Your task to perform on an android device: See recent photos Image 0: 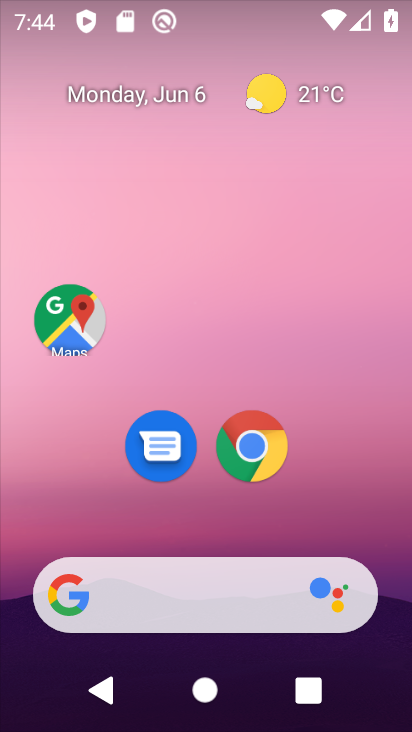
Step 0: drag from (278, 528) to (288, 12)
Your task to perform on an android device: See recent photos Image 1: 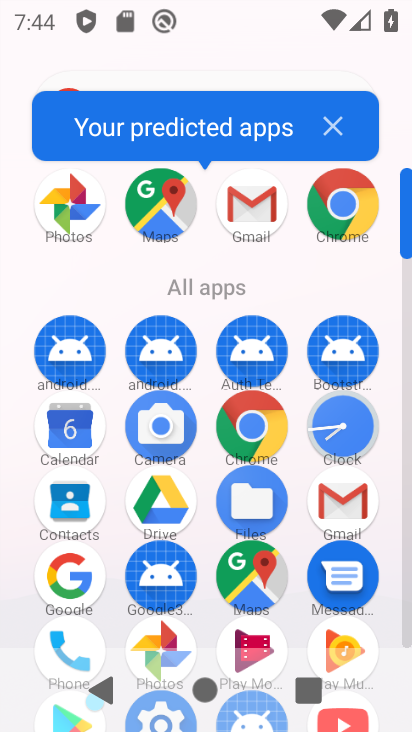
Step 1: click (168, 631)
Your task to perform on an android device: See recent photos Image 2: 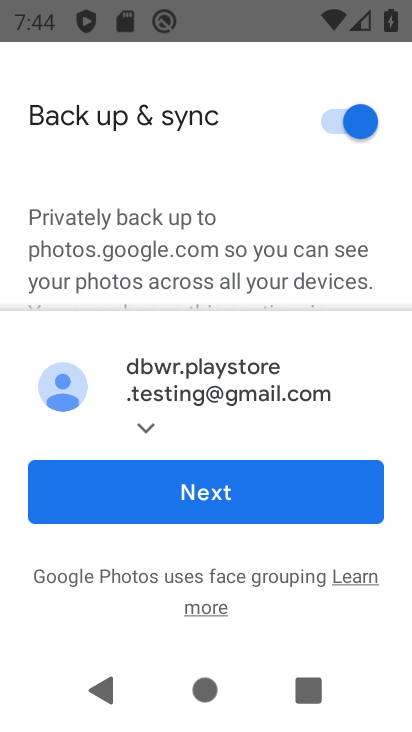
Step 2: click (172, 506)
Your task to perform on an android device: See recent photos Image 3: 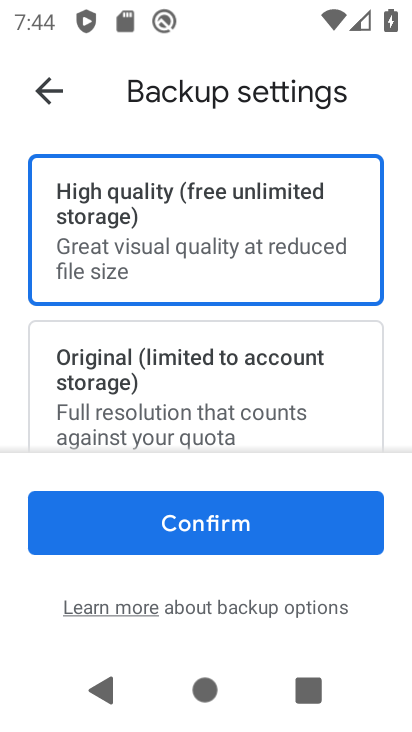
Step 3: click (250, 508)
Your task to perform on an android device: See recent photos Image 4: 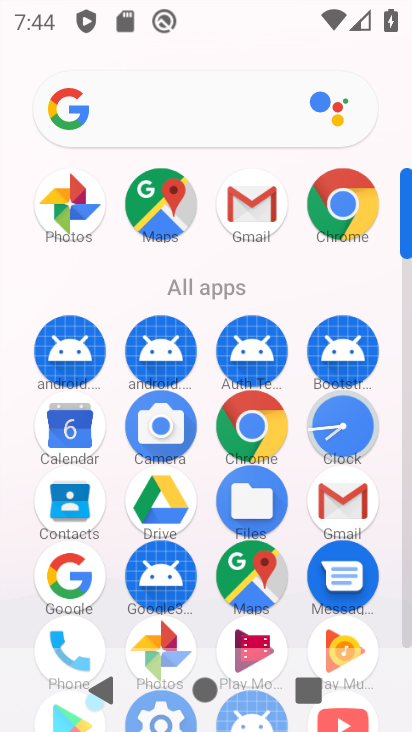
Step 4: click (169, 635)
Your task to perform on an android device: See recent photos Image 5: 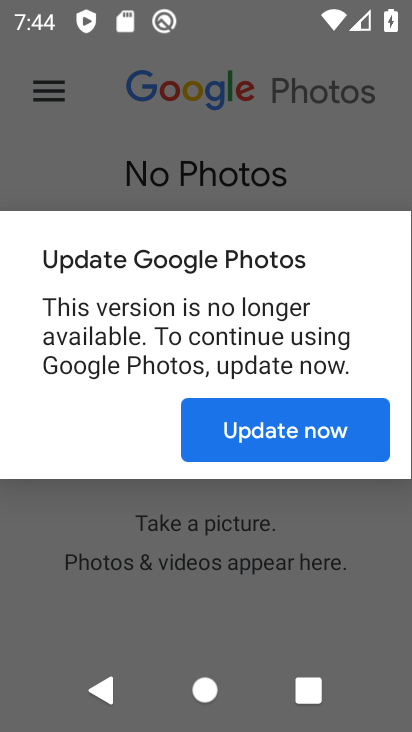
Step 5: click (303, 416)
Your task to perform on an android device: See recent photos Image 6: 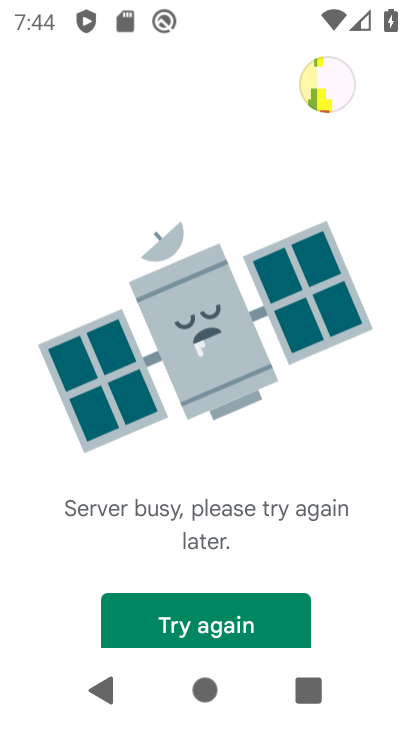
Step 6: click (260, 617)
Your task to perform on an android device: See recent photos Image 7: 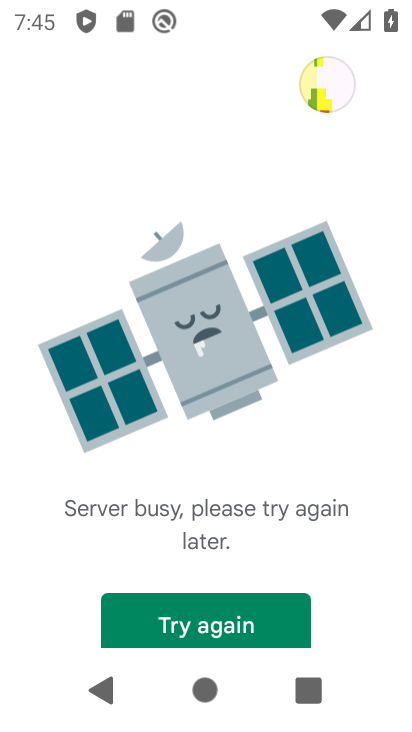
Step 7: task complete